Your task to perform on an android device: set the timer Image 0: 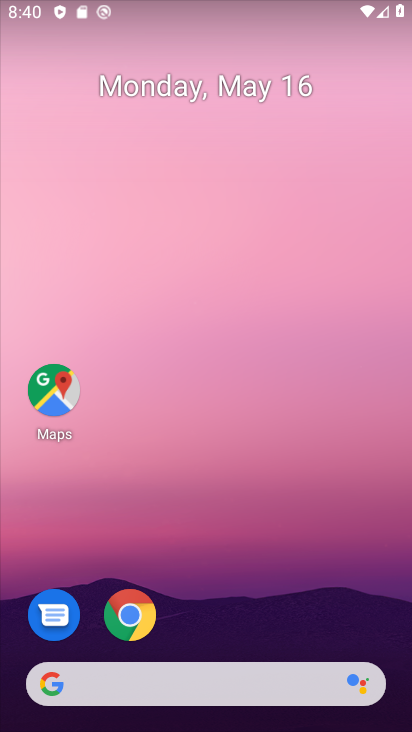
Step 0: drag from (187, 660) to (285, 151)
Your task to perform on an android device: set the timer Image 1: 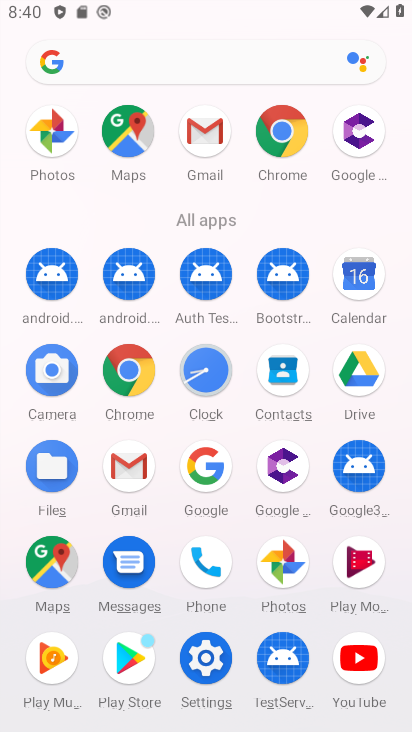
Step 1: click (207, 367)
Your task to perform on an android device: set the timer Image 2: 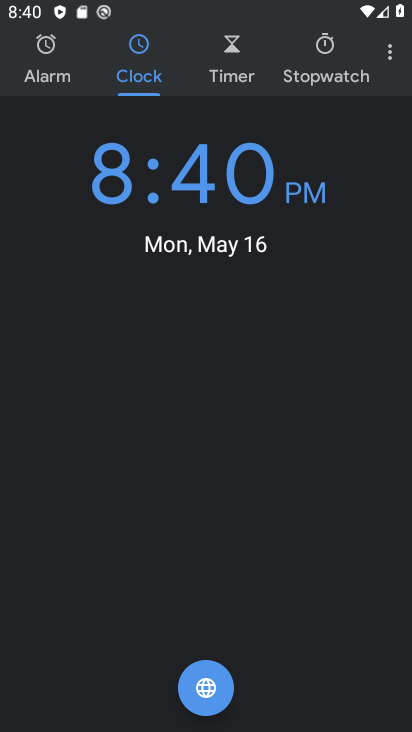
Step 2: click (244, 61)
Your task to perform on an android device: set the timer Image 3: 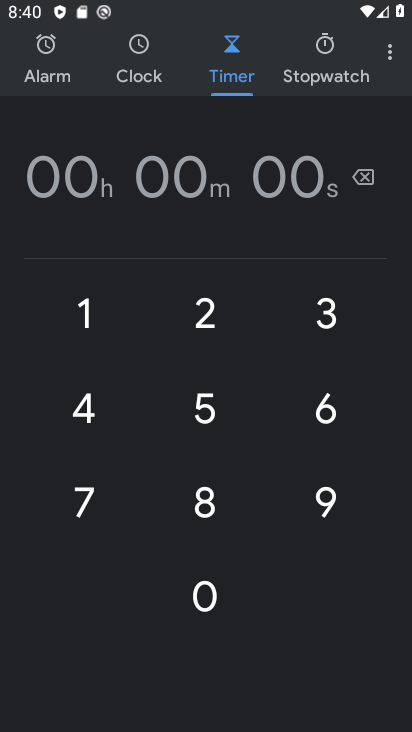
Step 3: click (180, 314)
Your task to perform on an android device: set the timer Image 4: 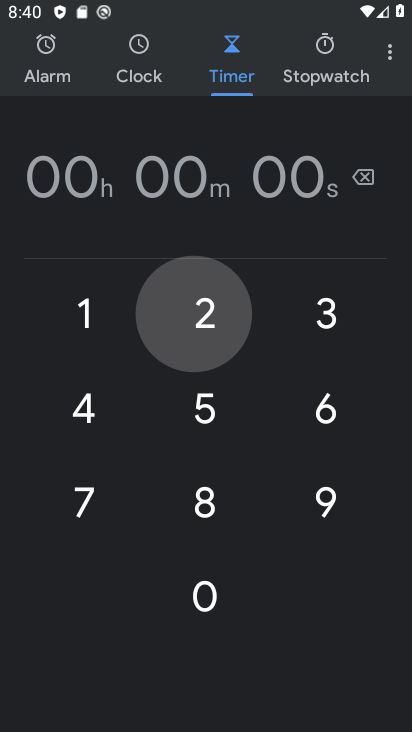
Step 4: click (189, 316)
Your task to perform on an android device: set the timer Image 5: 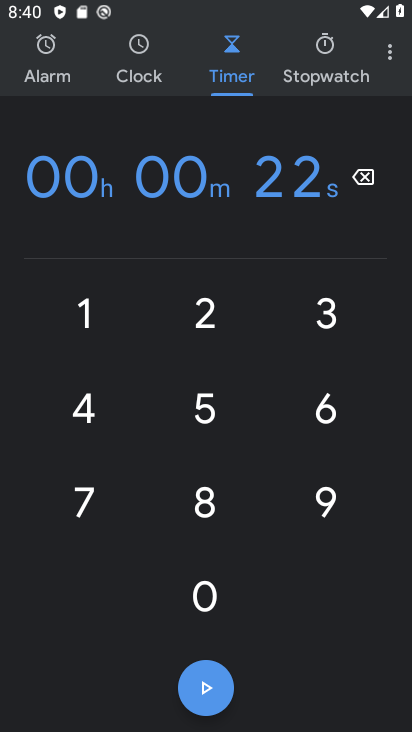
Step 5: click (189, 316)
Your task to perform on an android device: set the timer Image 6: 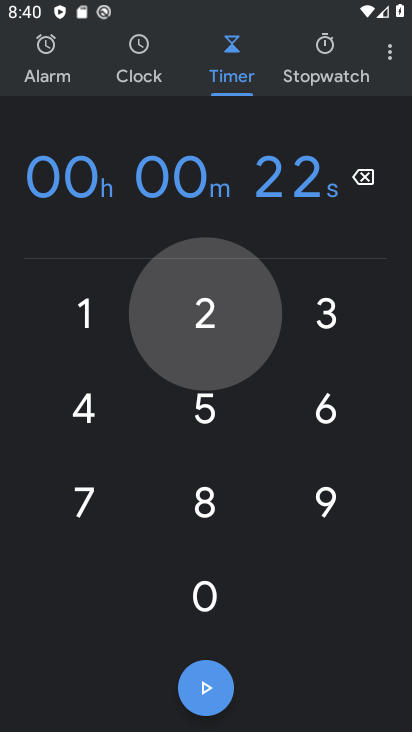
Step 6: click (189, 316)
Your task to perform on an android device: set the timer Image 7: 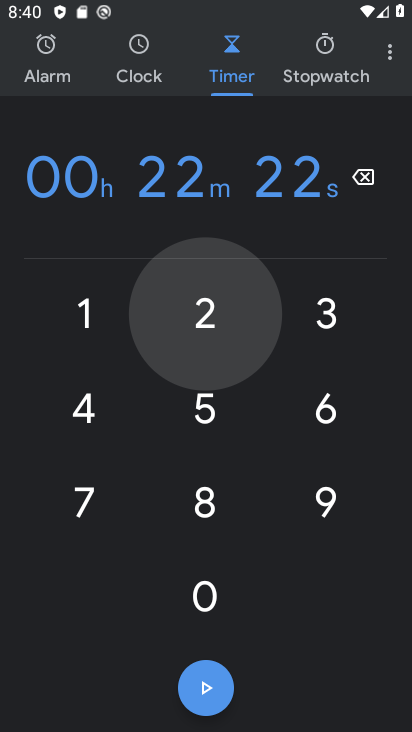
Step 7: click (189, 316)
Your task to perform on an android device: set the timer Image 8: 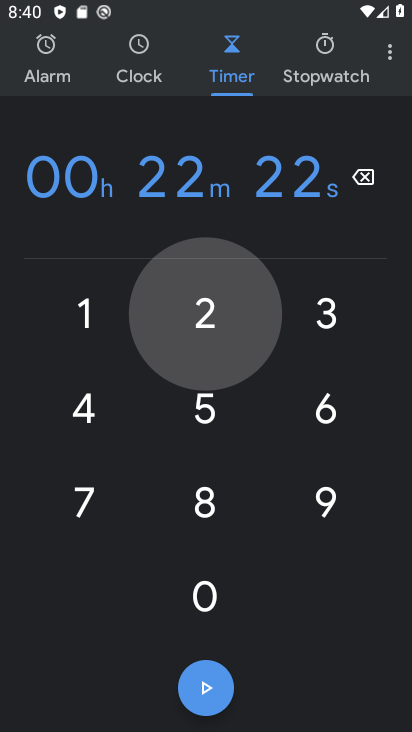
Step 8: click (189, 316)
Your task to perform on an android device: set the timer Image 9: 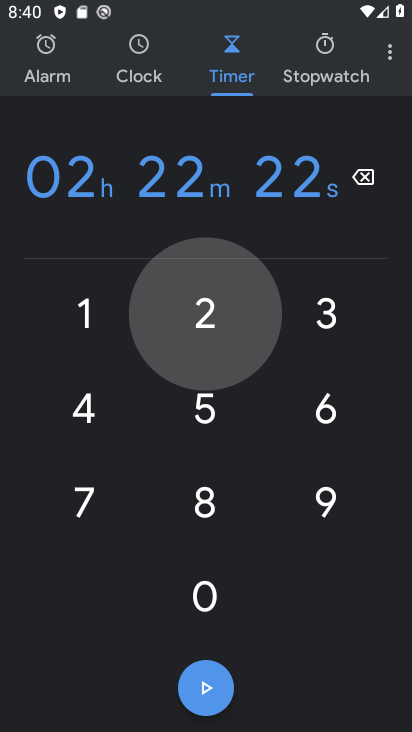
Step 9: click (189, 316)
Your task to perform on an android device: set the timer Image 10: 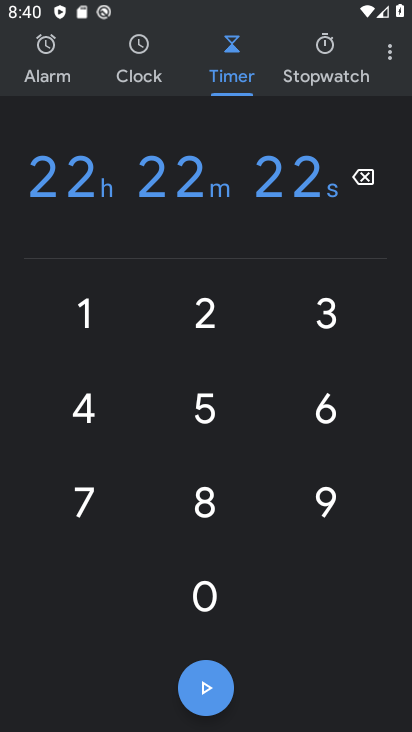
Step 10: click (189, 316)
Your task to perform on an android device: set the timer Image 11: 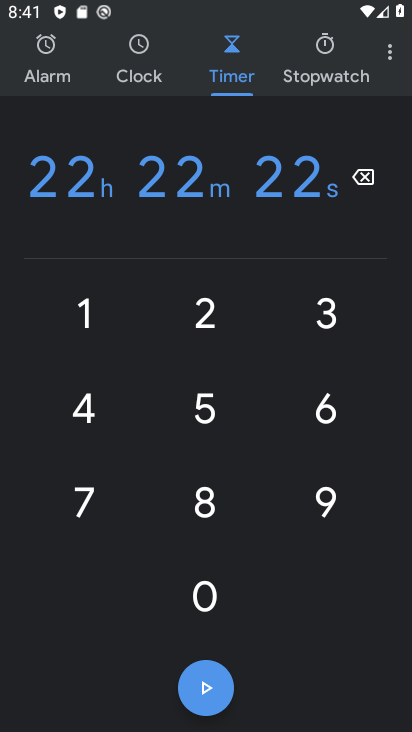
Step 11: click (193, 694)
Your task to perform on an android device: set the timer Image 12: 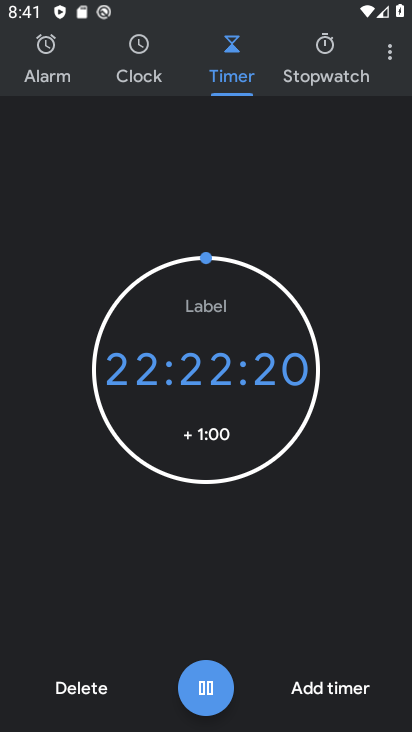
Step 12: task complete